Your task to perform on an android device: Is it going to rain this weekend? Image 0: 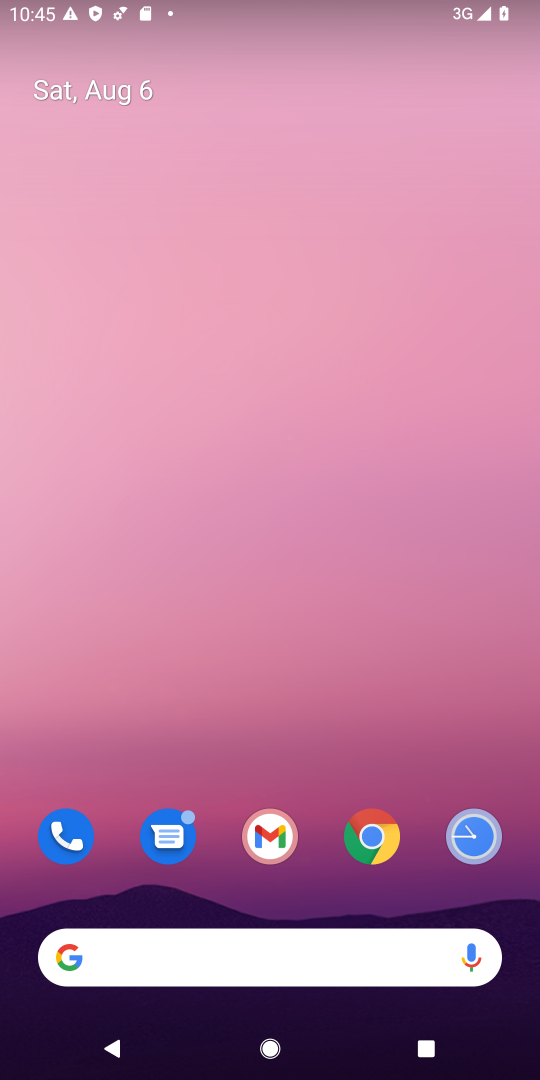
Step 0: drag from (285, 695) to (338, 34)
Your task to perform on an android device: Is it going to rain this weekend? Image 1: 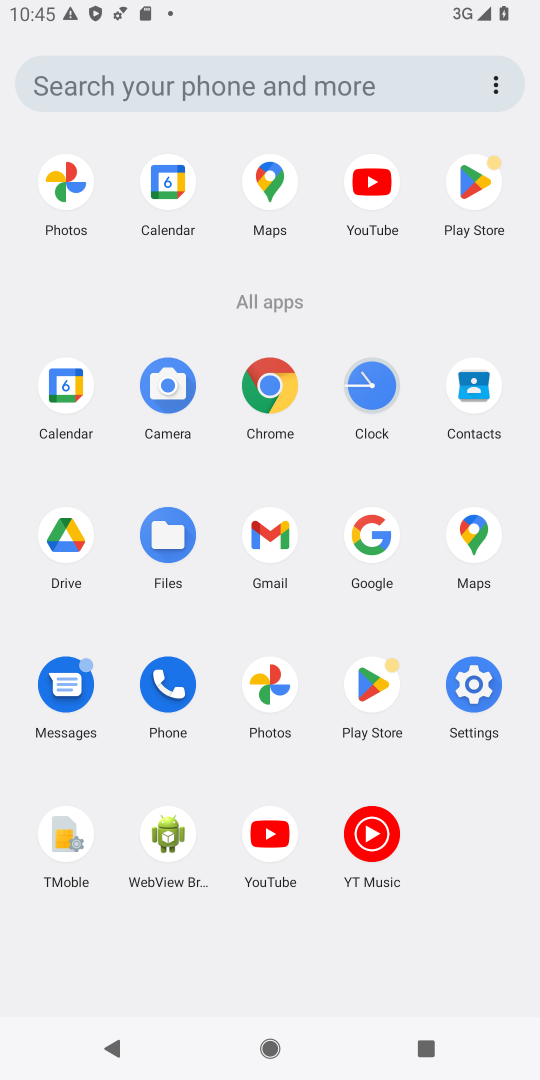
Step 1: click (376, 557)
Your task to perform on an android device: Is it going to rain this weekend? Image 2: 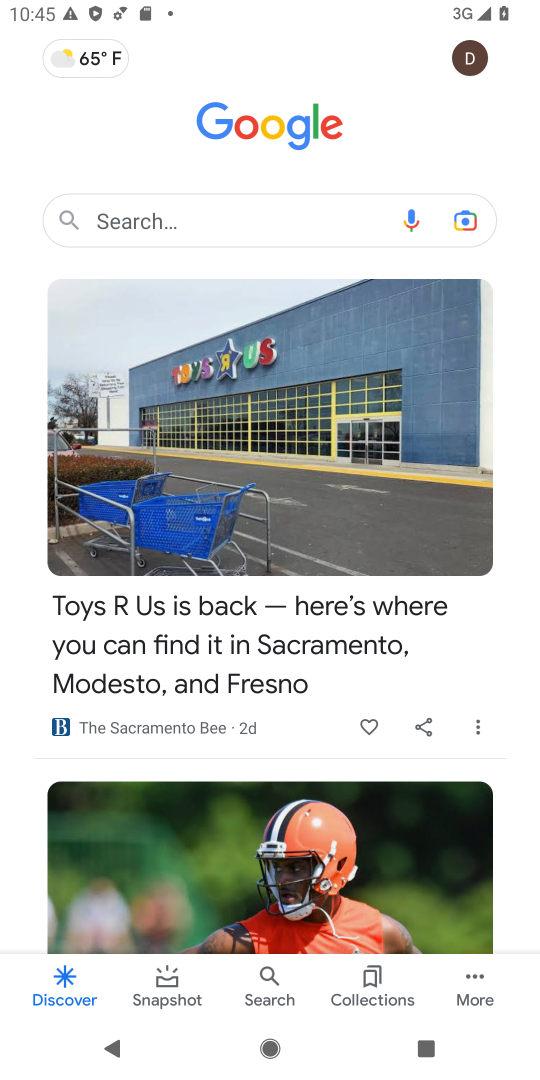
Step 2: click (191, 219)
Your task to perform on an android device: Is it going to rain this weekend? Image 3: 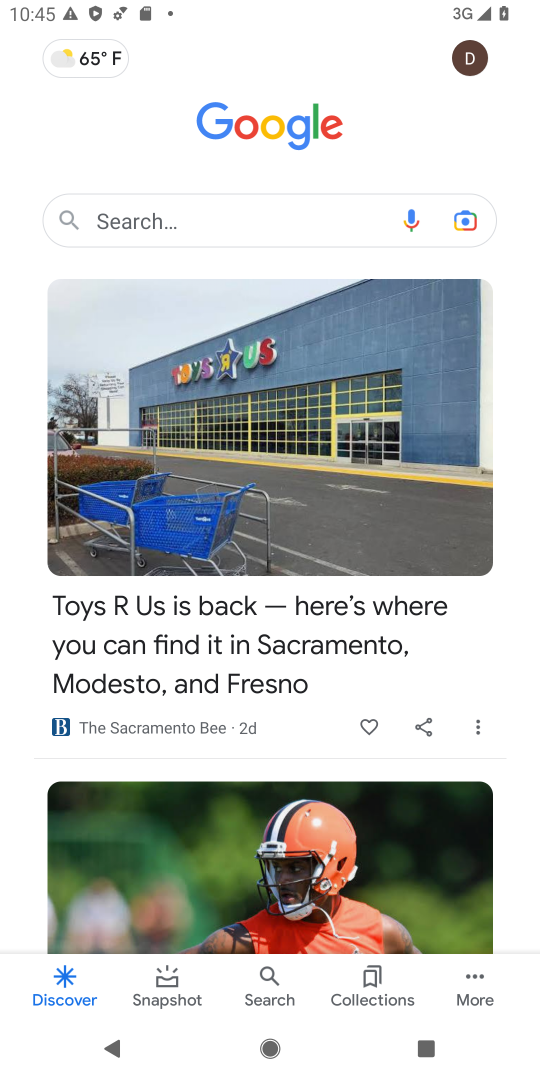
Step 3: click (191, 219)
Your task to perform on an android device: Is it going to rain this weekend? Image 4: 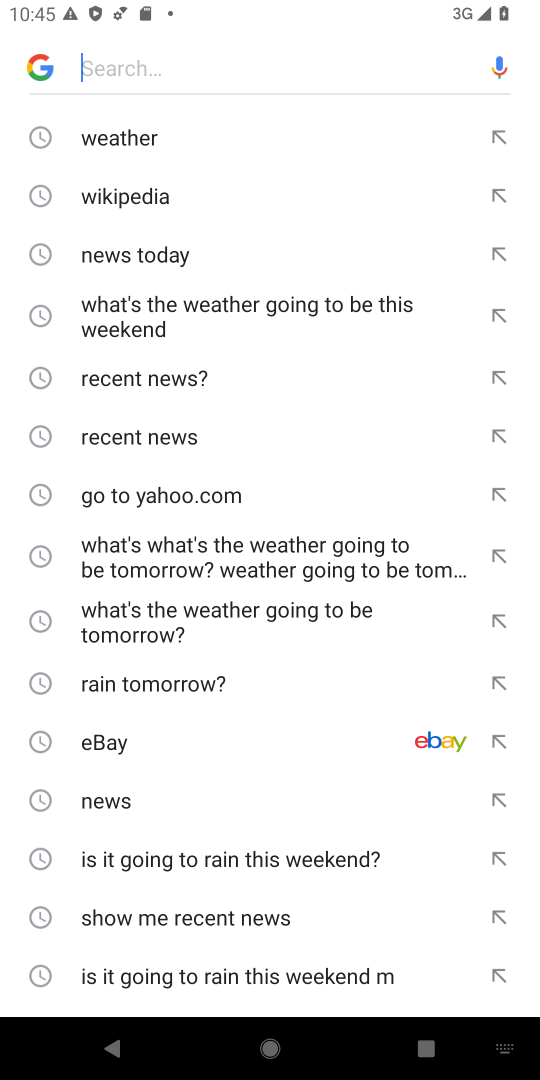
Step 4: click (120, 127)
Your task to perform on an android device: Is it going to rain this weekend? Image 5: 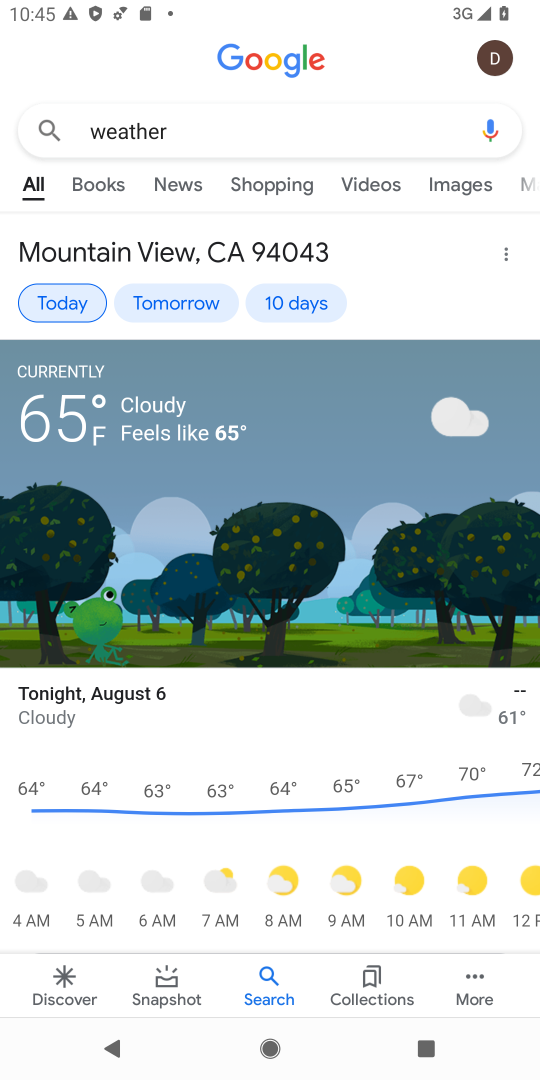
Step 5: click (267, 302)
Your task to perform on an android device: Is it going to rain this weekend? Image 6: 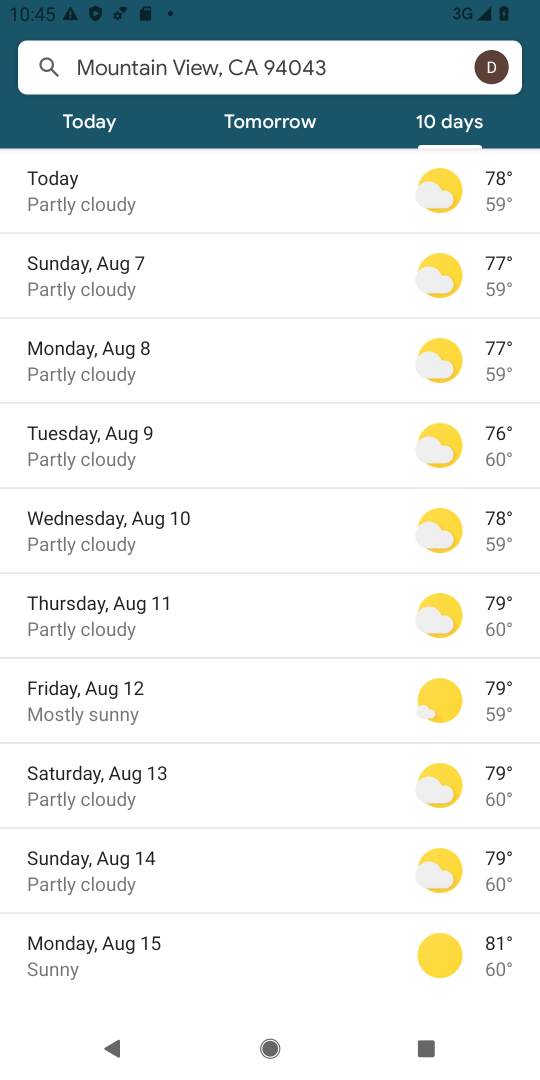
Step 6: task complete